Your task to perform on an android device: make emails show in primary in the gmail app Image 0: 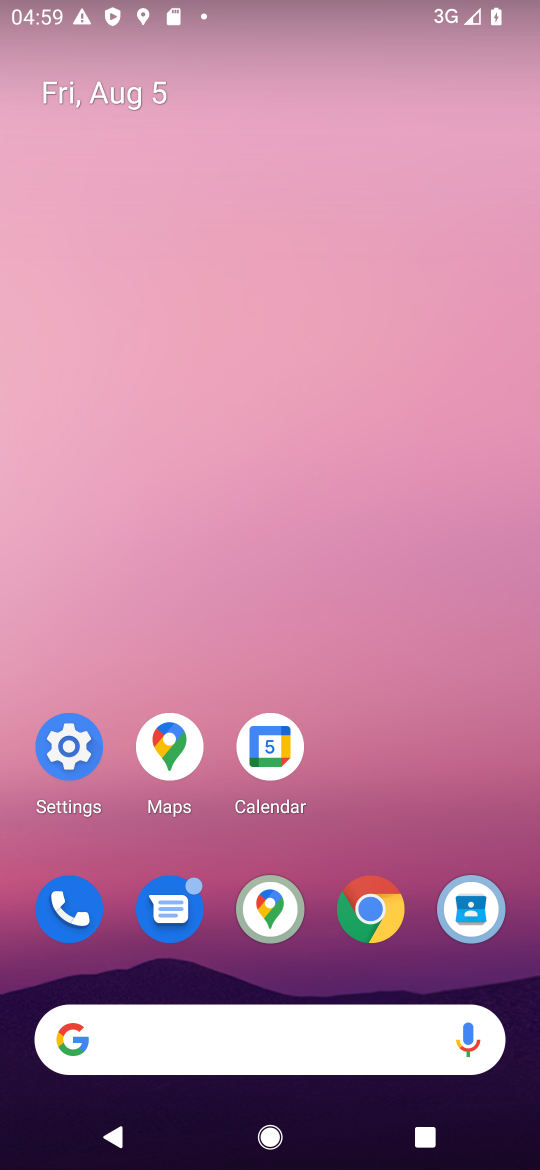
Step 0: drag from (386, 811) to (278, 8)
Your task to perform on an android device: make emails show in primary in the gmail app Image 1: 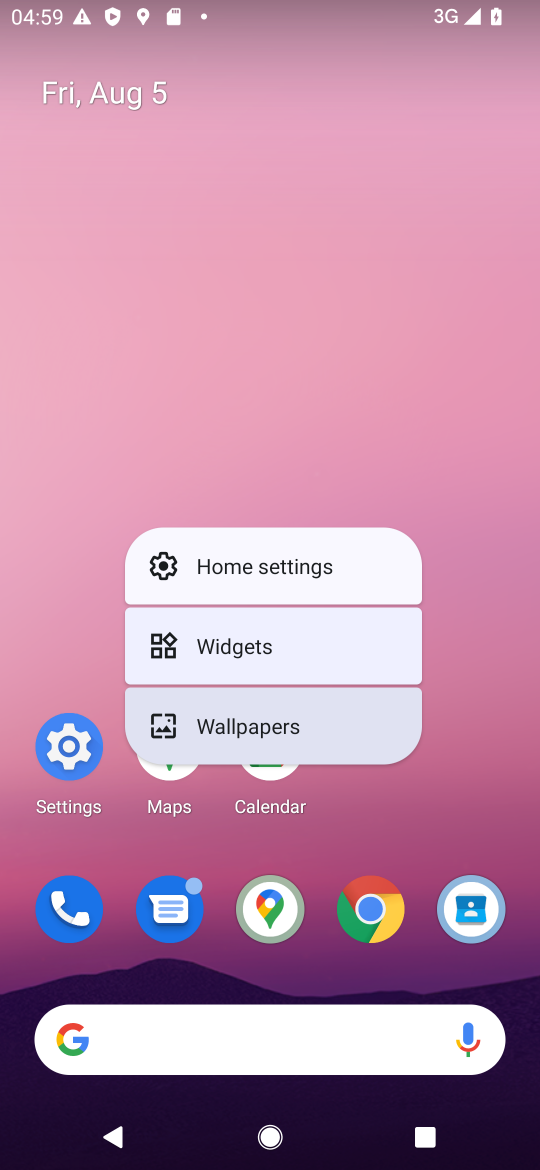
Step 1: click (311, 330)
Your task to perform on an android device: make emails show in primary in the gmail app Image 2: 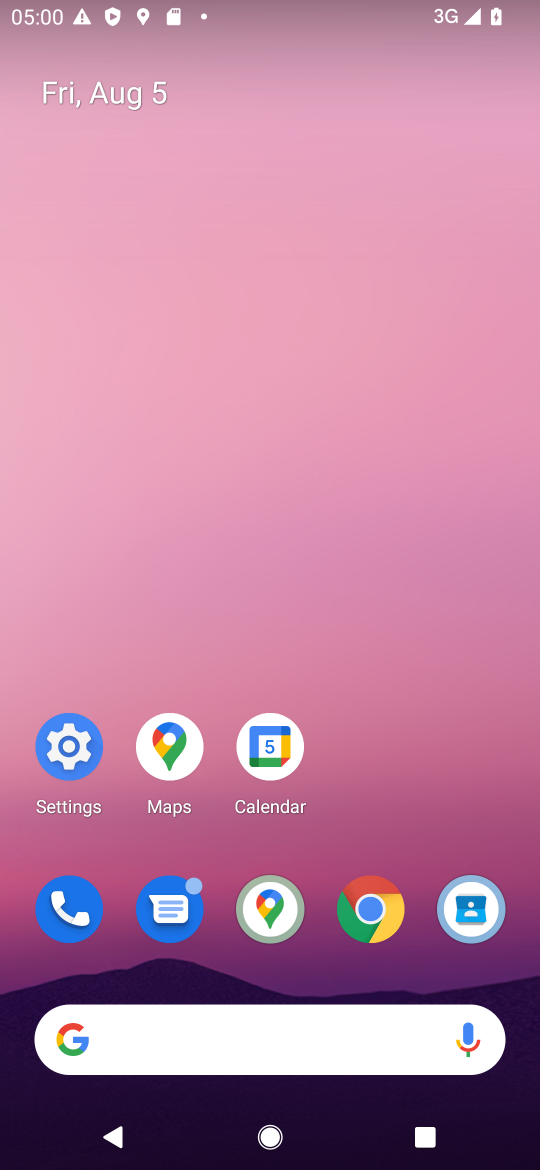
Step 2: drag from (384, 793) to (378, 77)
Your task to perform on an android device: make emails show in primary in the gmail app Image 3: 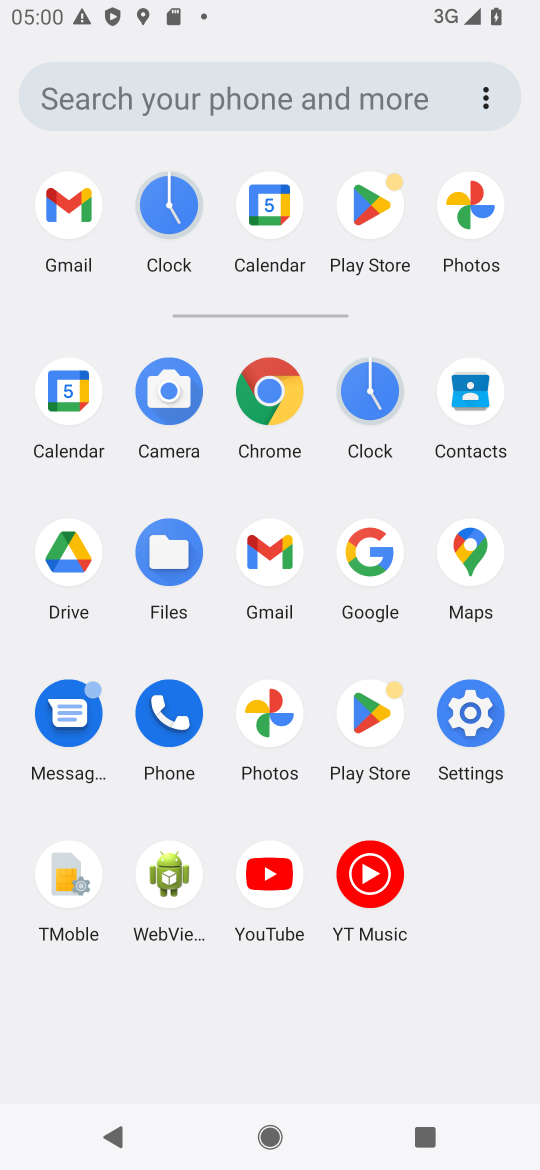
Step 3: click (267, 605)
Your task to perform on an android device: make emails show in primary in the gmail app Image 4: 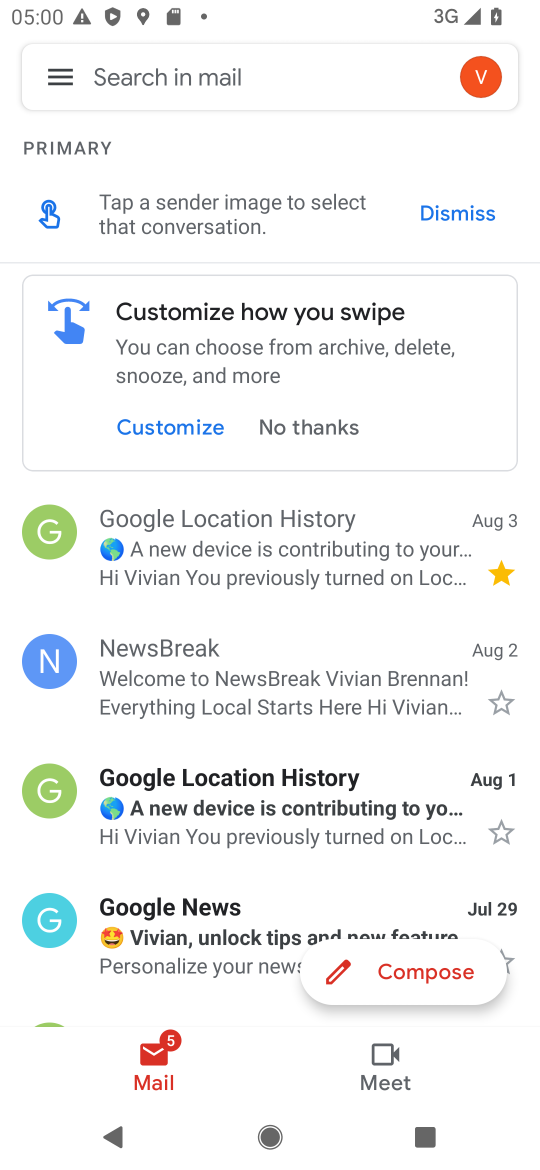
Step 4: click (65, 78)
Your task to perform on an android device: make emails show in primary in the gmail app Image 5: 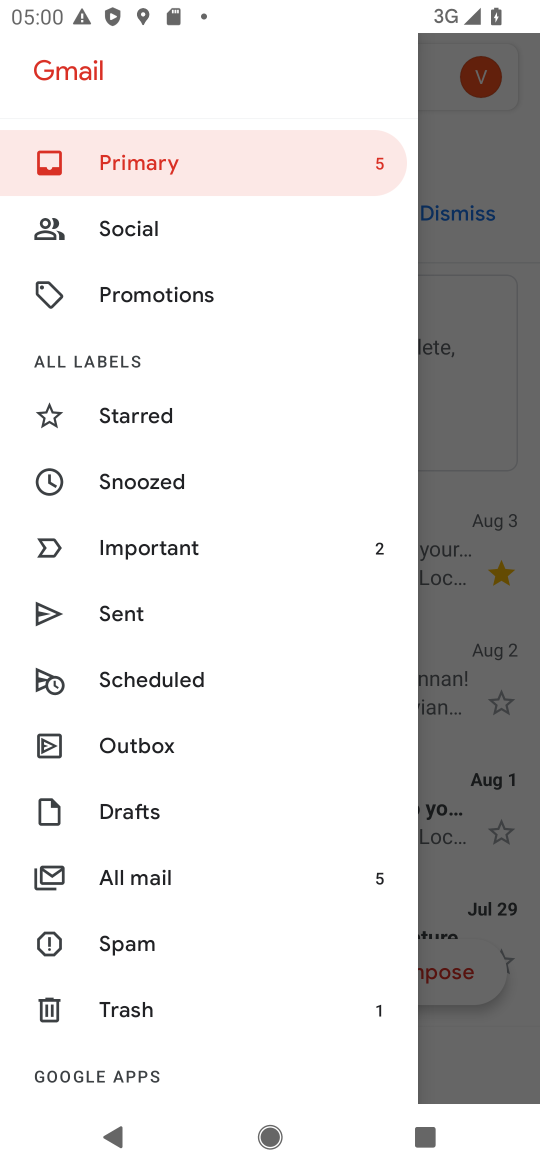
Step 5: click (160, 156)
Your task to perform on an android device: make emails show in primary in the gmail app Image 6: 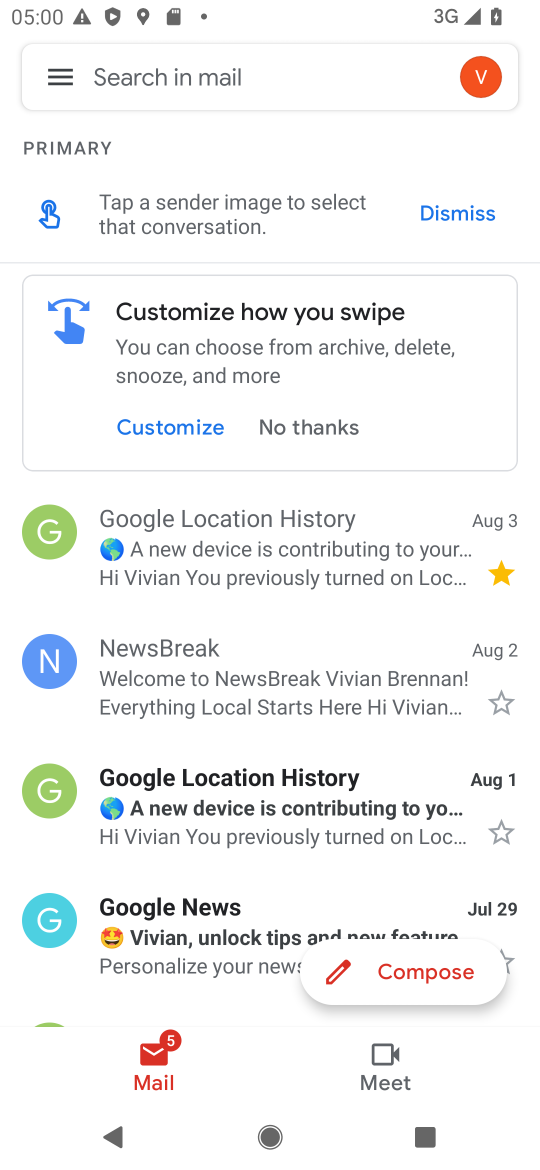
Step 6: task complete